Your task to perform on an android device: star an email in the gmail app Image 0: 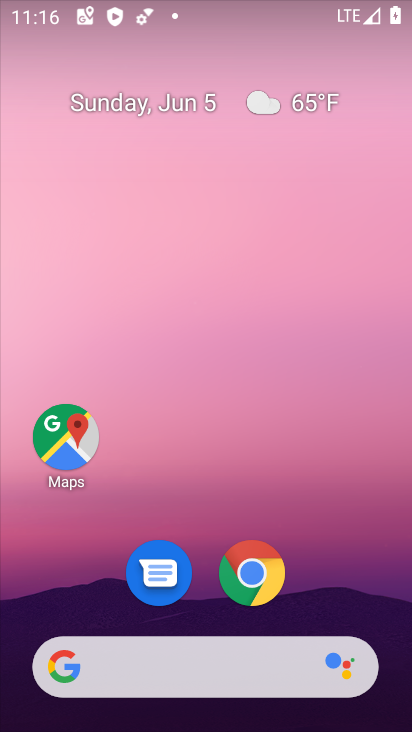
Step 0: drag from (327, 486) to (270, 23)
Your task to perform on an android device: star an email in the gmail app Image 1: 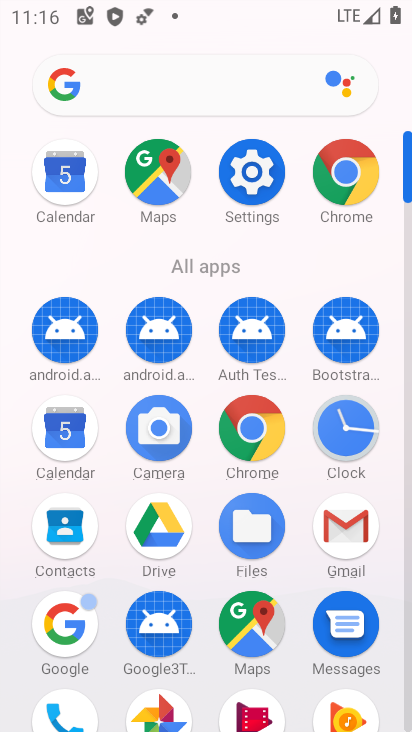
Step 1: click (354, 535)
Your task to perform on an android device: star an email in the gmail app Image 2: 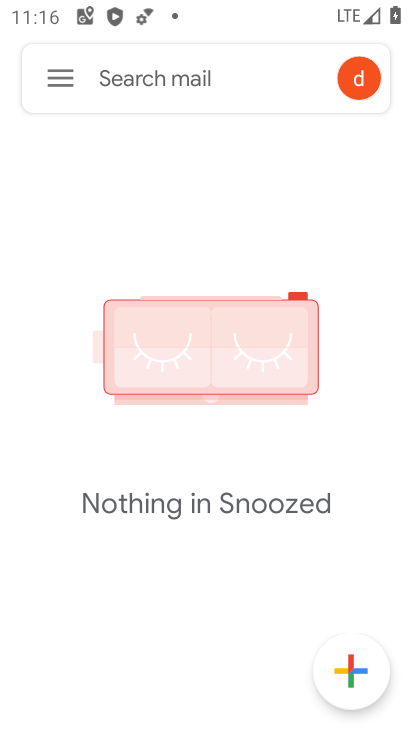
Step 2: click (70, 88)
Your task to perform on an android device: star an email in the gmail app Image 3: 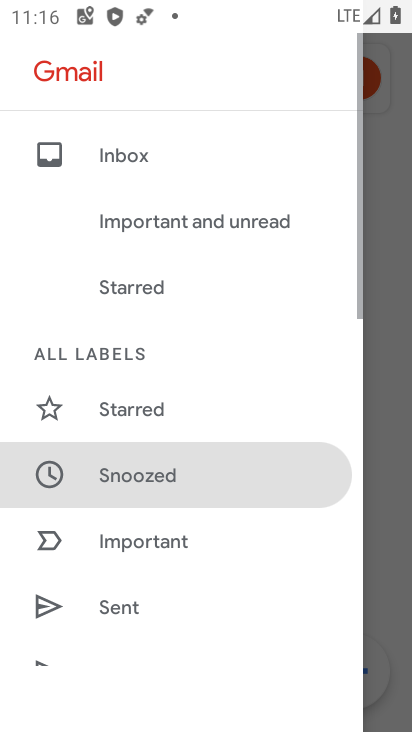
Step 3: drag from (121, 599) to (203, 180)
Your task to perform on an android device: star an email in the gmail app Image 4: 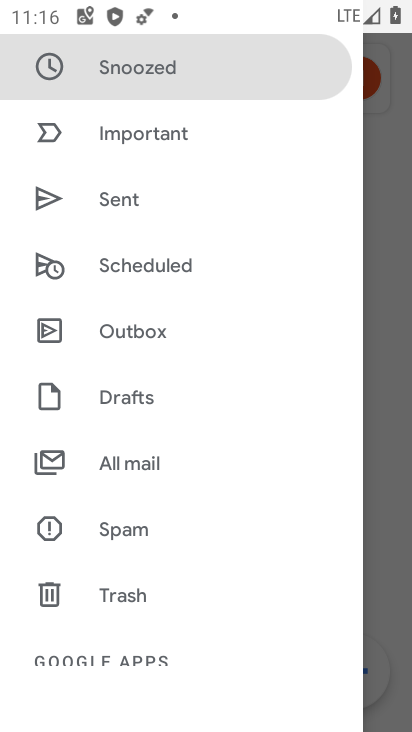
Step 4: click (138, 485)
Your task to perform on an android device: star an email in the gmail app Image 5: 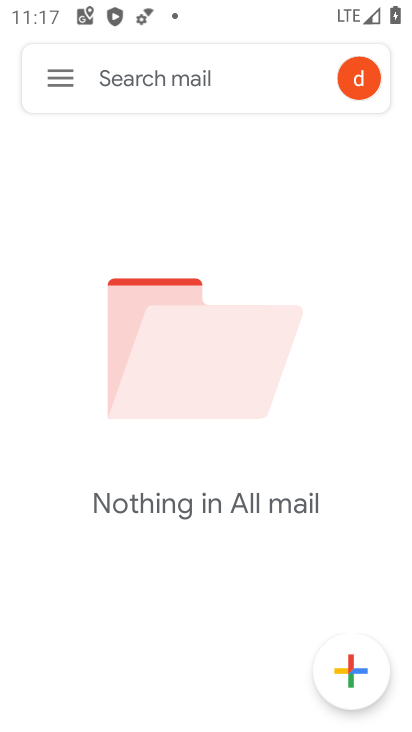
Step 5: task complete